Your task to perform on an android device: see tabs open on other devices in the chrome app Image 0: 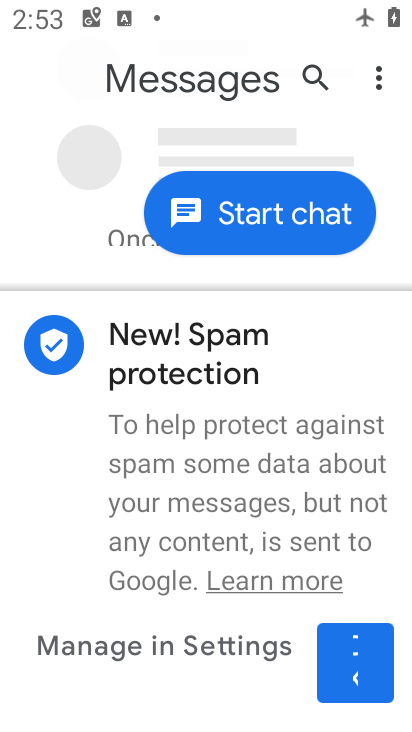
Step 0: press home button
Your task to perform on an android device: see tabs open on other devices in the chrome app Image 1: 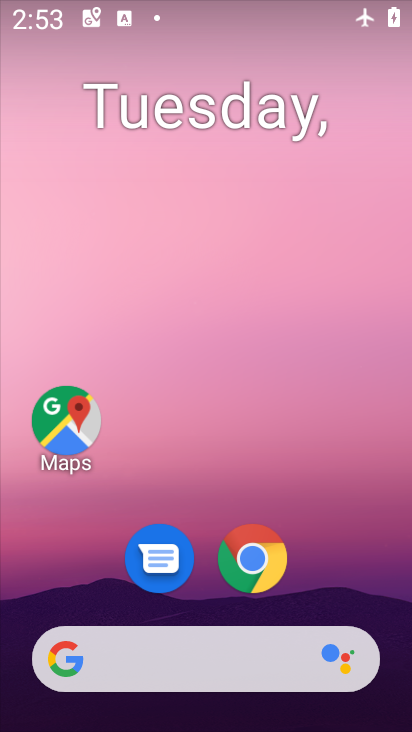
Step 1: click (259, 584)
Your task to perform on an android device: see tabs open on other devices in the chrome app Image 2: 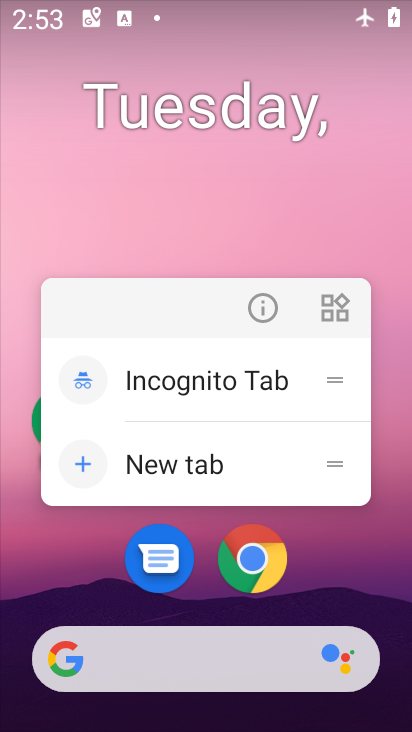
Step 2: click (247, 562)
Your task to perform on an android device: see tabs open on other devices in the chrome app Image 3: 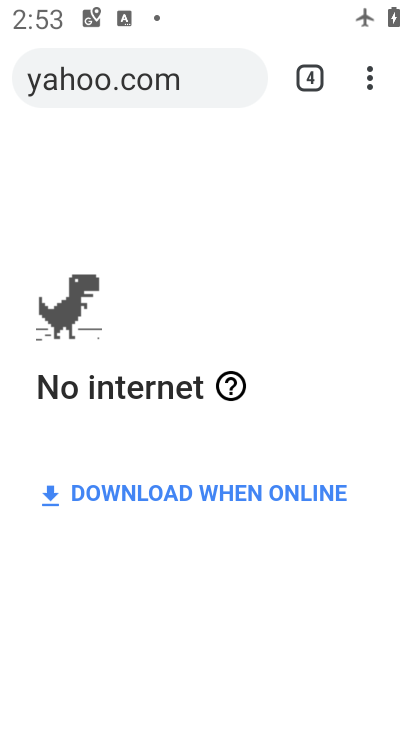
Step 3: click (367, 68)
Your task to perform on an android device: see tabs open on other devices in the chrome app Image 4: 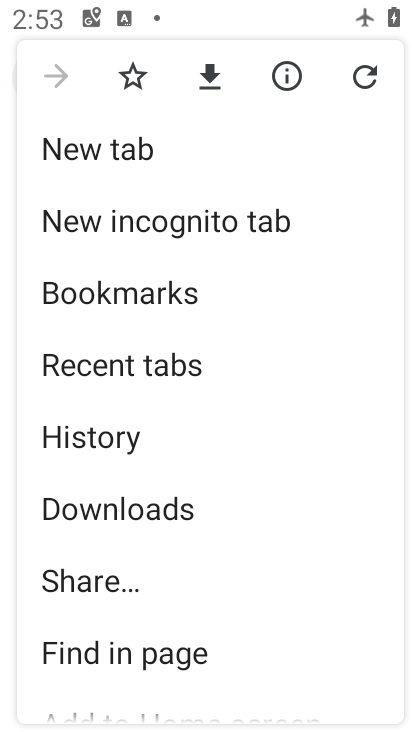
Step 4: click (108, 375)
Your task to perform on an android device: see tabs open on other devices in the chrome app Image 5: 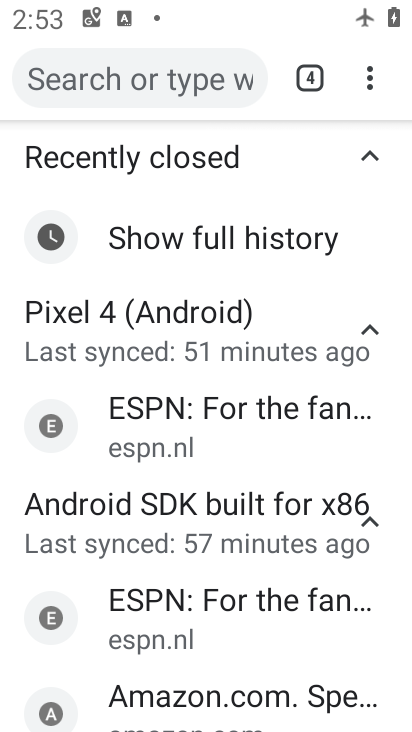
Step 5: task complete